Your task to perform on an android device: move an email to a new category in the gmail app Image 0: 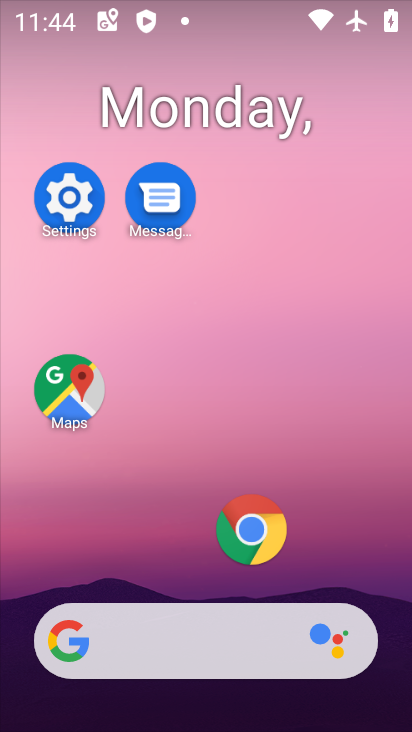
Step 0: drag from (177, 513) to (248, 108)
Your task to perform on an android device: move an email to a new category in the gmail app Image 1: 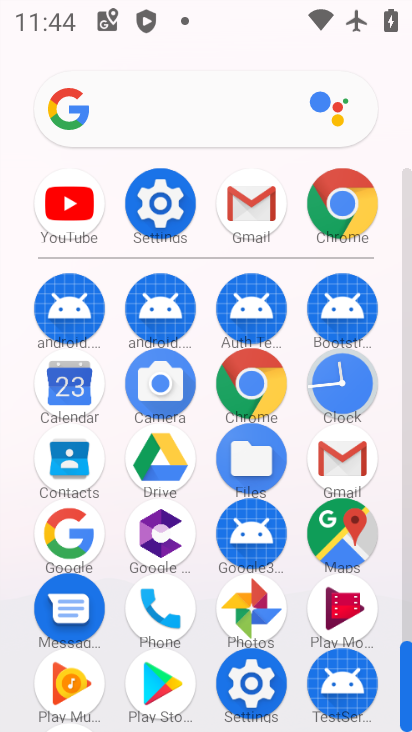
Step 1: click (341, 455)
Your task to perform on an android device: move an email to a new category in the gmail app Image 2: 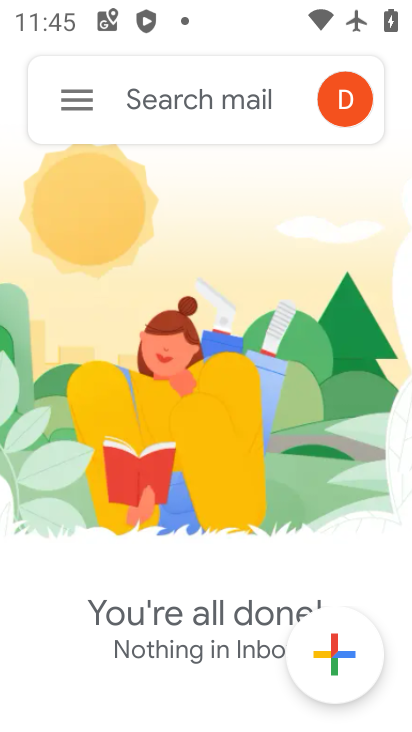
Step 2: click (63, 100)
Your task to perform on an android device: move an email to a new category in the gmail app Image 3: 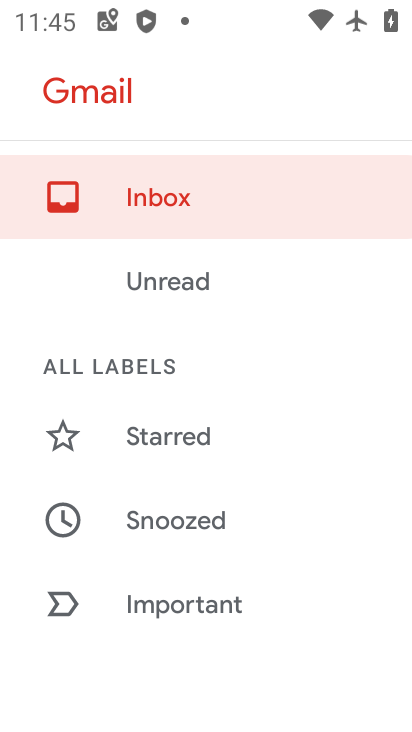
Step 3: drag from (122, 510) to (216, 93)
Your task to perform on an android device: move an email to a new category in the gmail app Image 4: 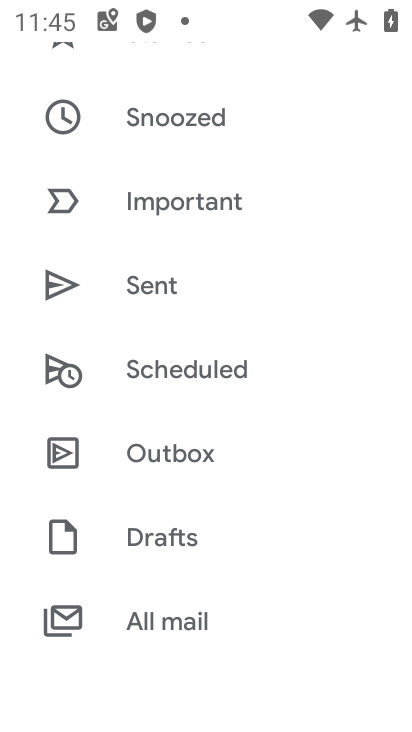
Step 4: drag from (148, 546) to (209, 203)
Your task to perform on an android device: move an email to a new category in the gmail app Image 5: 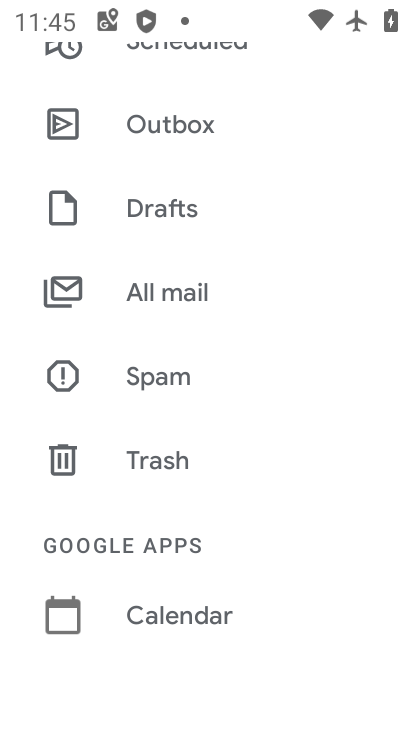
Step 5: click (195, 289)
Your task to perform on an android device: move an email to a new category in the gmail app Image 6: 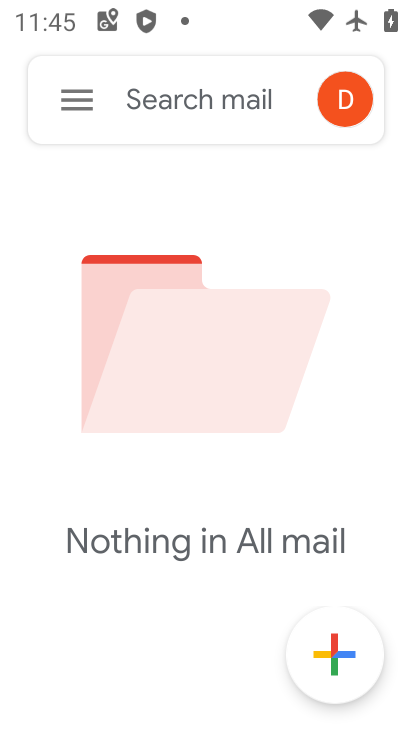
Step 6: task complete